Your task to perform on an android device: Go to privacy settings Image 0: 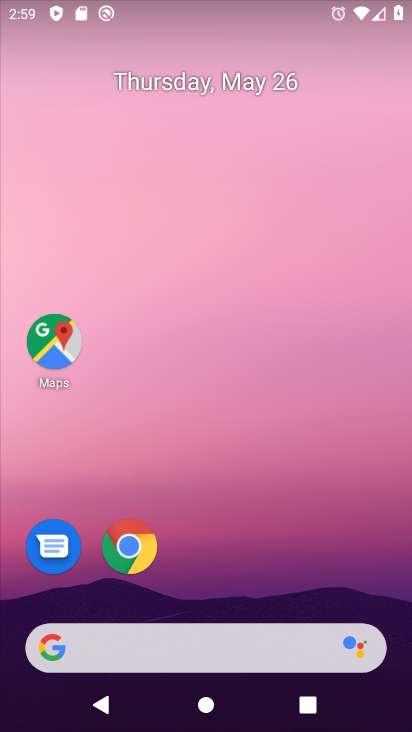
Step 0: click (123, 540)
Your task to perform on an android device: Go to privacy settings Image 1: 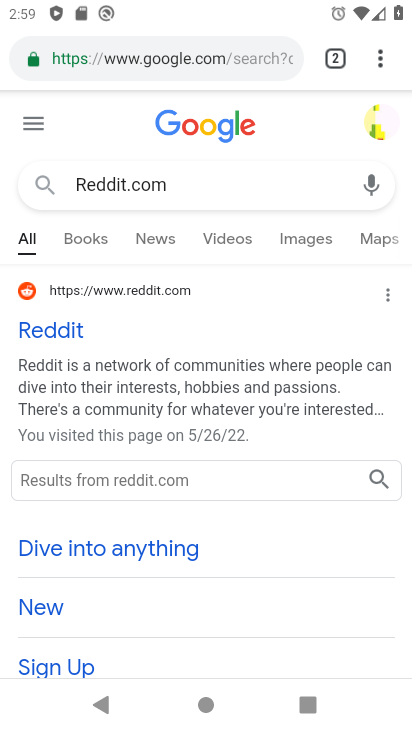
Step 1: click (378, 62)
Your task to perform on an android device: Go to privacy settings Image 2: 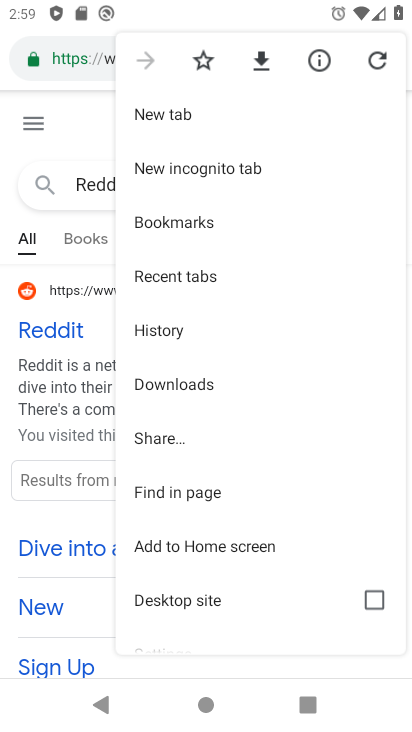
Step 2: drag from (292, 566) to (311, 339)
Your task to perform on an android device: Go to privacy settings Image 3: 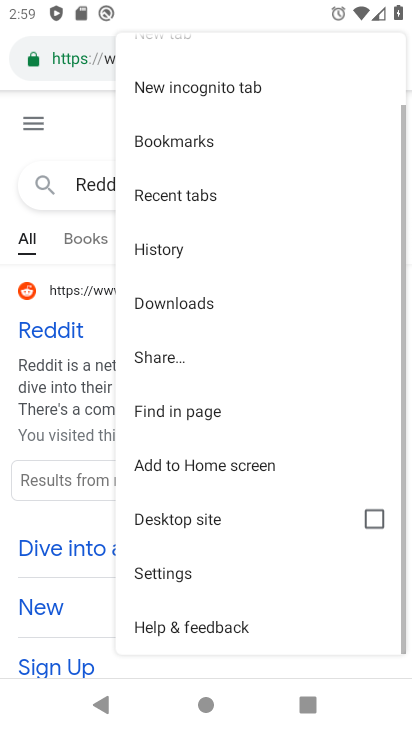
Step 3: click (165, 571)
Your task to perform on an android device: Go to privacy settings Image 4: 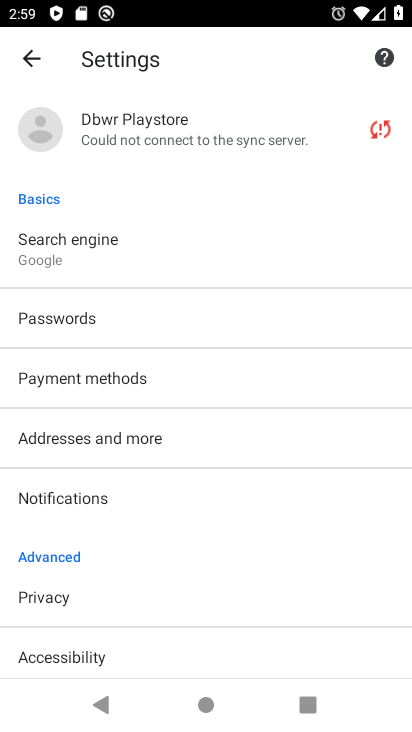
Step 4: click (43, 596)
Your task to perform on an android device: Go to privacy settings Image 5: 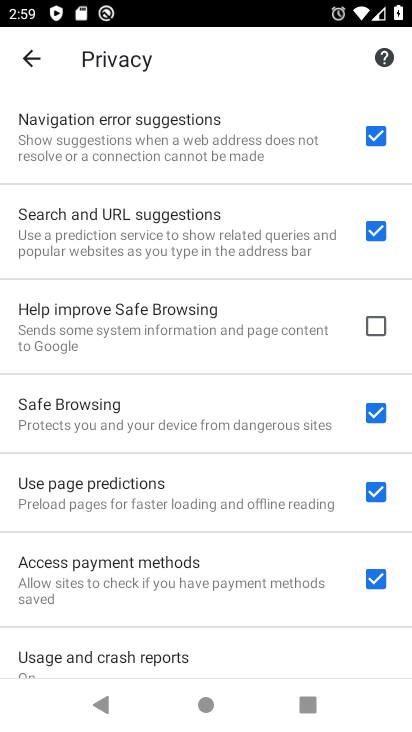
Step 5: task complete